Your task to perform on an android device: add a contact in the contacts app Image 0: 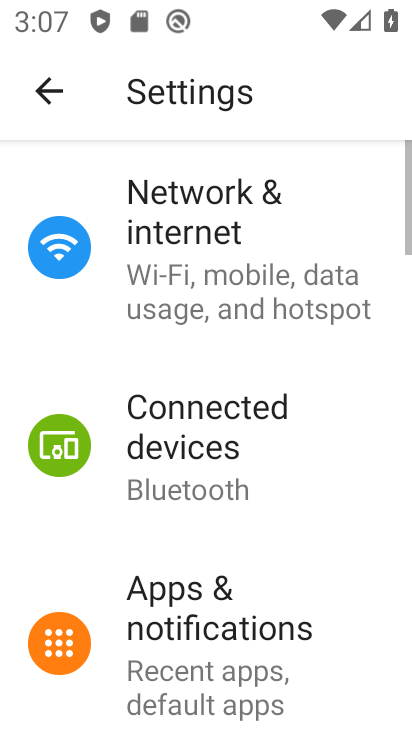
Step 0: press back button
Your task to perform on an android device: add a contact in the contacts app Image 1: 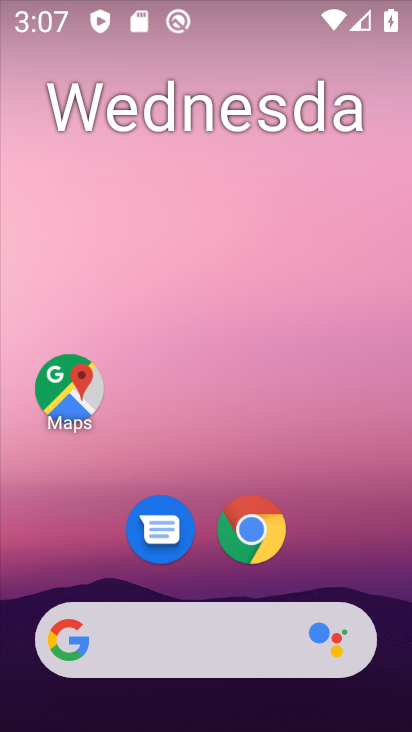
Step 1: drag from (105, 506) to (207, 58)
Your task to perform on an android device: add a contact in the contacts app Image 2: 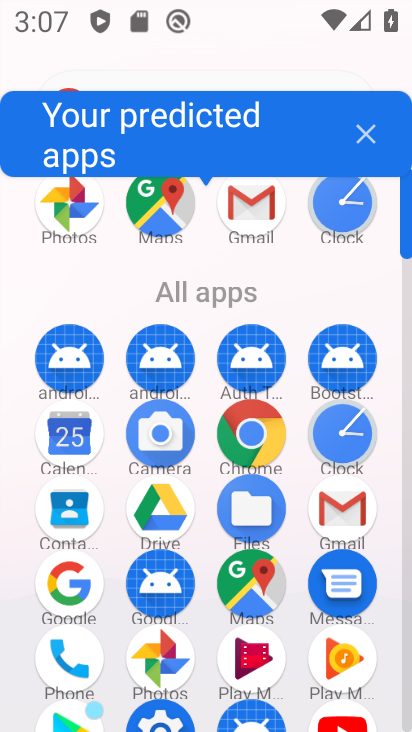
Step 2: drag from (181, 678) to (230, 475)
Your task to perform on an android device: add a contact in the contacts app Image 3: 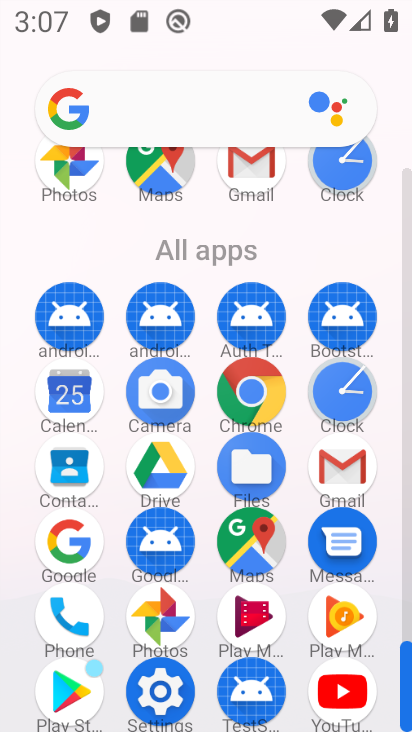
Step 3: click (75, 477)
Your task to perform on an android device: add a contact in the contacts app Image 4: 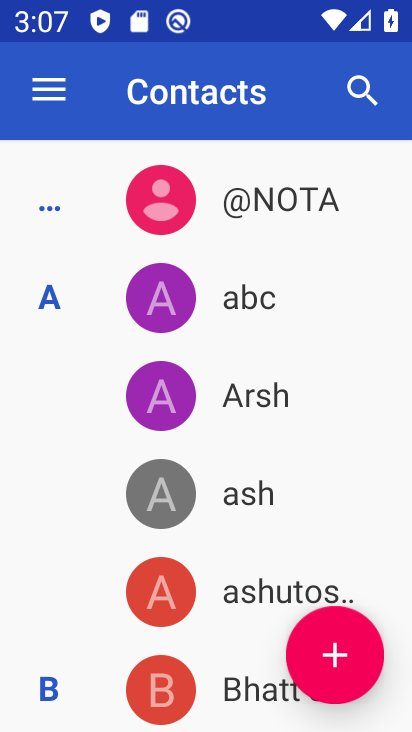
Step 4: click (303, 681)
Your task to perform on an android device: add a contact in the contacts app Image 5: 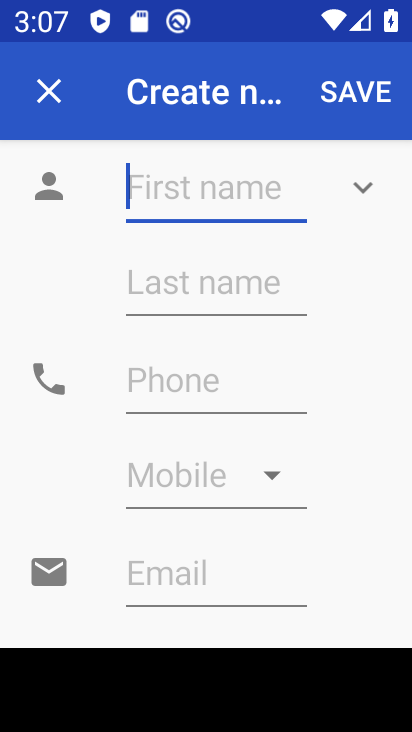
Step 5: type "yhuyhu"
Your task to perform on an android device: add a contact in the contacts app Image 6: 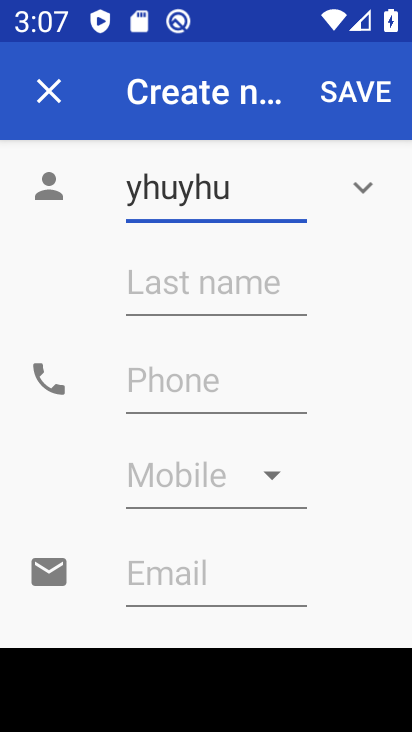
Step 6: click (189, 381)
Your task to perform on an android device: add a contact in the contacts app Image 7: 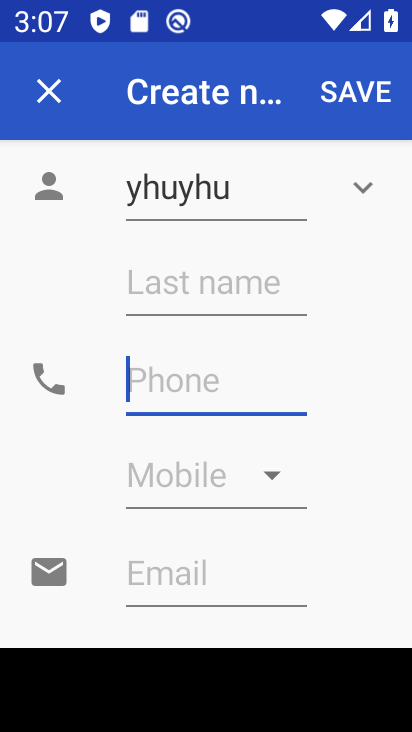
Step 7: type "98998998"
Your task to perform on an android device: add a contact in the contacts app Image 8: 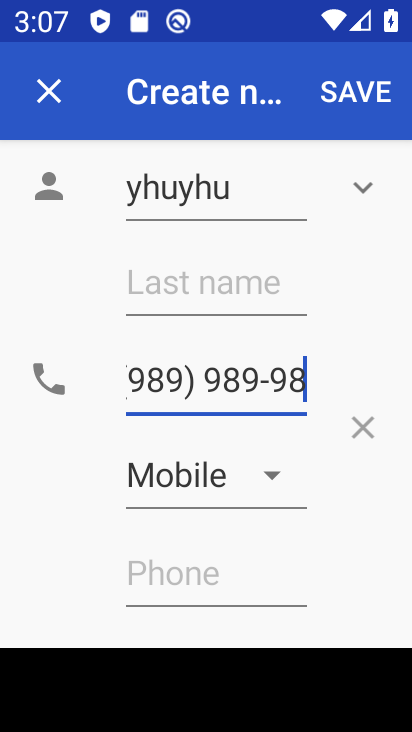
Step 8: type "11"
Your task to perform on an android device: add a contact in the contacts app Image 9: 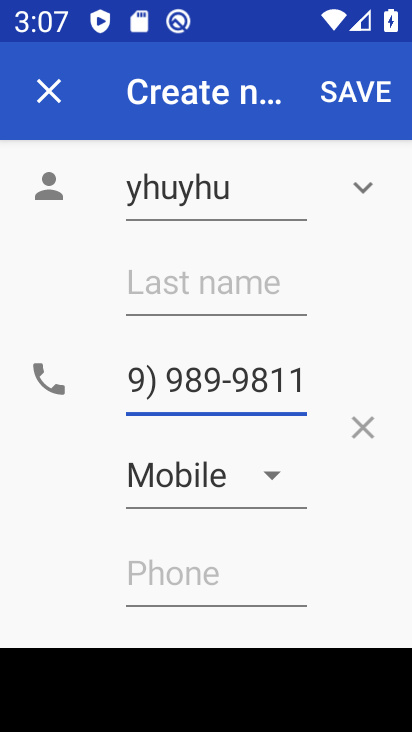
Step 9: click (346, 103)
Your task to perform on an android device: add a contact in the contacts app Image 10: 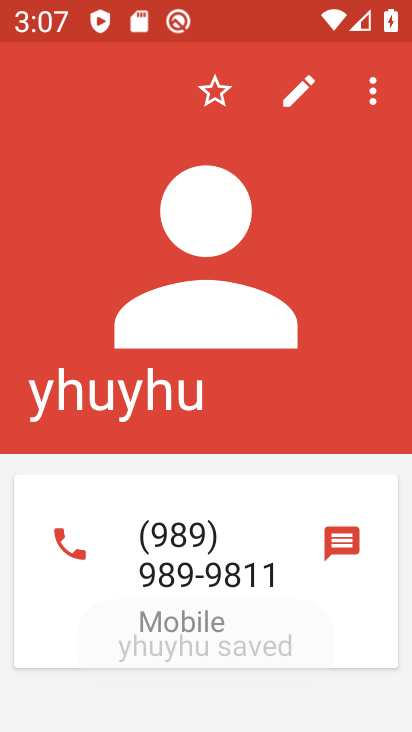
Step 10: task complete